Your task to perform on an android device: turn off location Image 0: 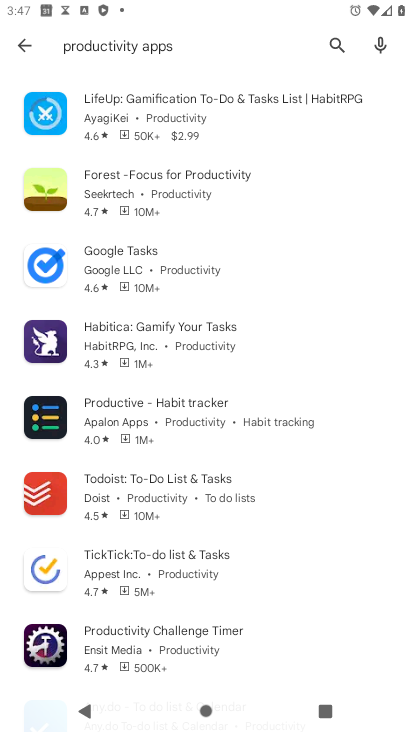
Step 0: press home button
Your task to perform on an android device: turn off location Image 1: 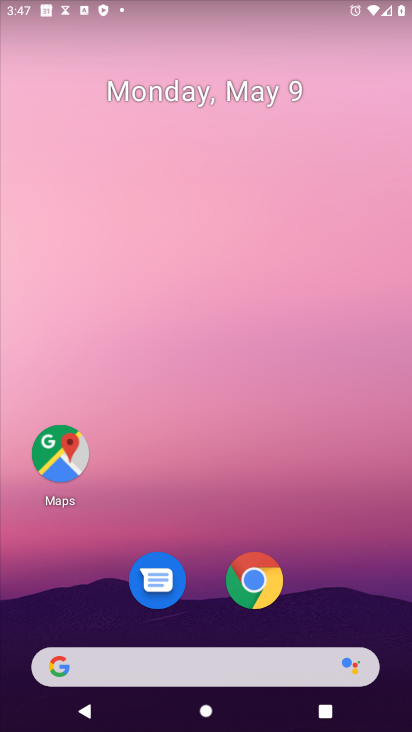
Step 1: drag from (339, 587) to (257, 46)
Your task to perform on an android device: turn off location Image 2: 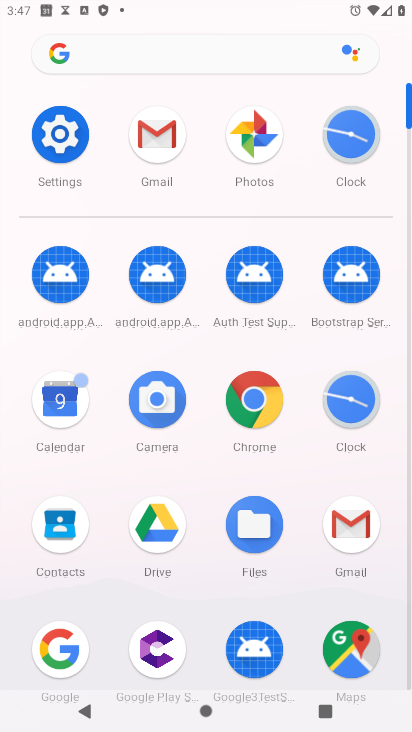
Step 2: click (55, 105)
Your task to perform on an android device: turn off location Image 3: 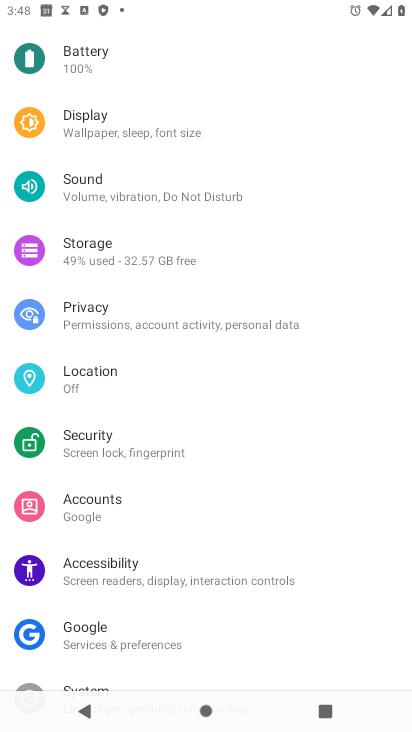
Step 3: click (131, 391)
Your task to perform on an android device: turn off location Image 4: 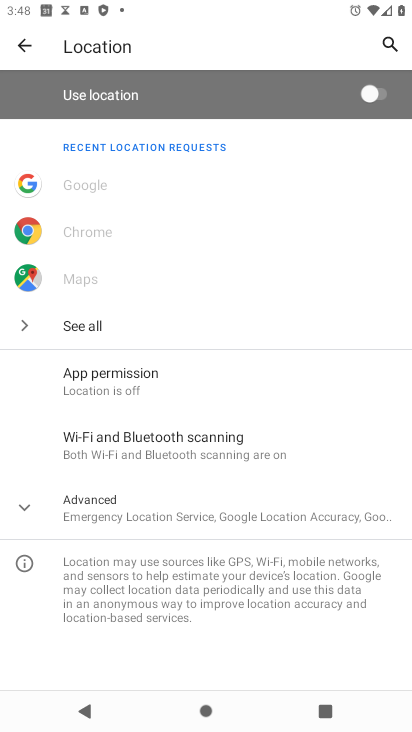
Step 4: task complete